Your task to perform on an android device: Is it going to rain this weekend? Image 0: 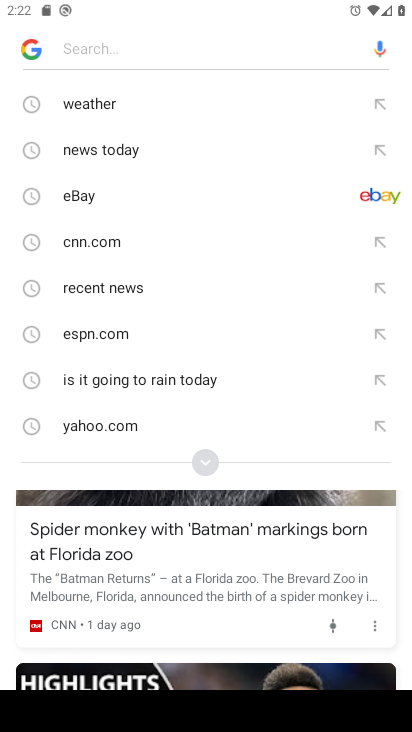
Step 0: press home button
Your task to perform on an android device: Is it going to rain this weekend? Image 1: 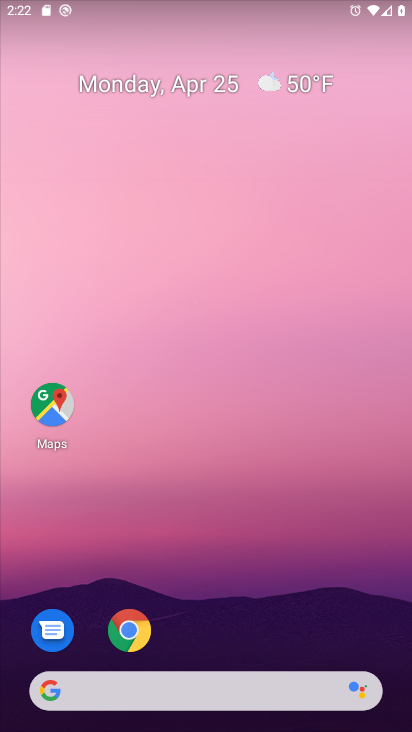
Step 1: drag from (273, 632) to (273, 150)
Your task to perform on an android device: Is it going to rain this weekend? Image 2: 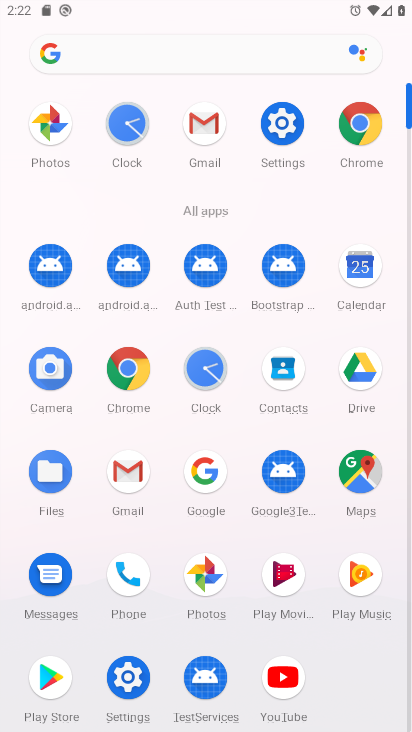
Step 2: click (201, 476)
Your task to perform on an android device: Is it going to rain this weekend? Image 3: 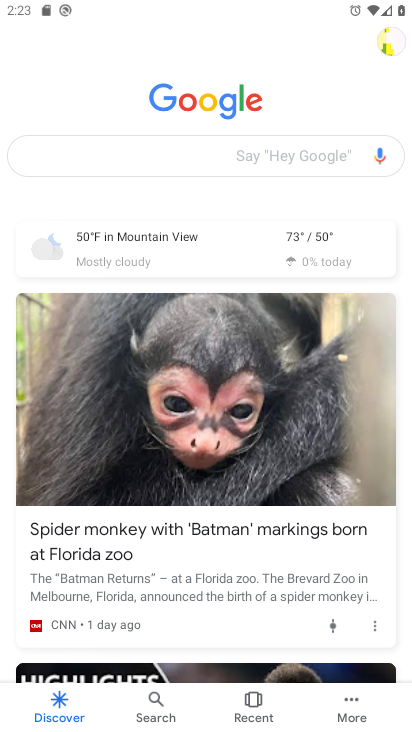
Step 3: click (202, 240)
Your task to perform on an android device: Is it going to rain this weekend? Image 4: 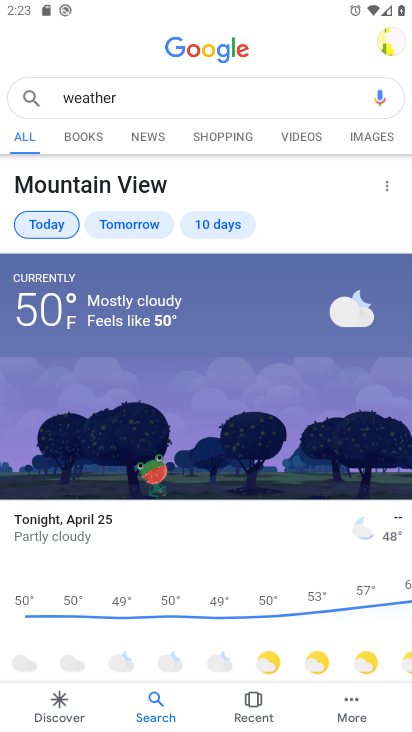
Step 4: click (208, 237)
Your task to perform on an android device: Is it going to rain this weekend? Image 5: 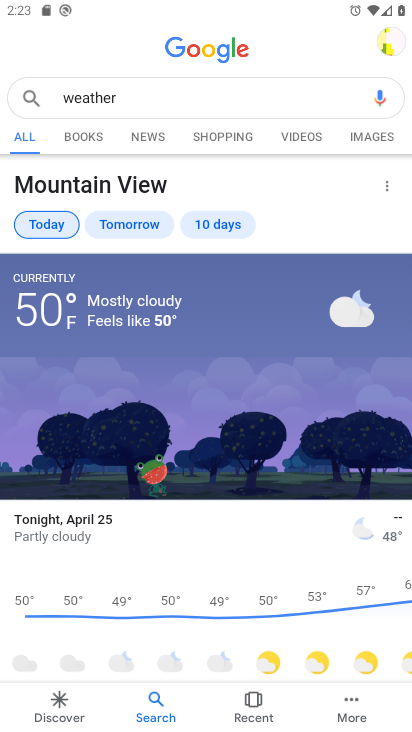
Step 5: click (210, 222)
Your task to perform on an android device: Is it going to rain this weekend? Image 6: 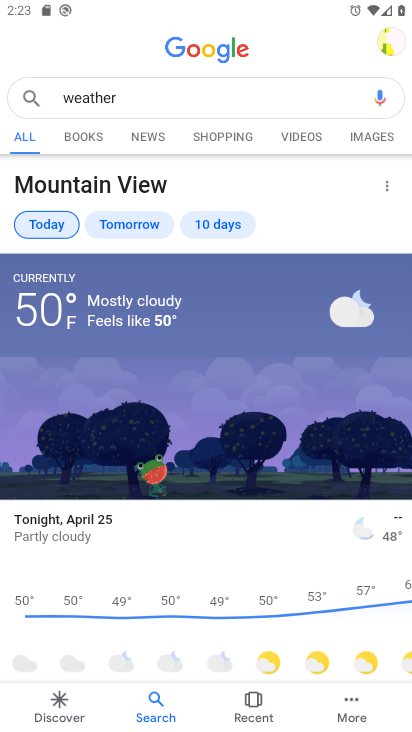
Step 6: click (229, 231)
Your task to perform on an android device: Is it going to rain this weekend? Image 7: 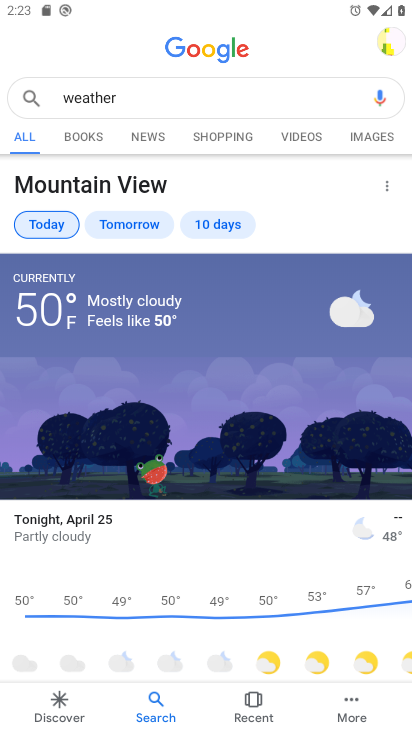
Step 7: click (229, 231)
Your task to perform on an android device: Is it going to rain this weekend? Image 8: 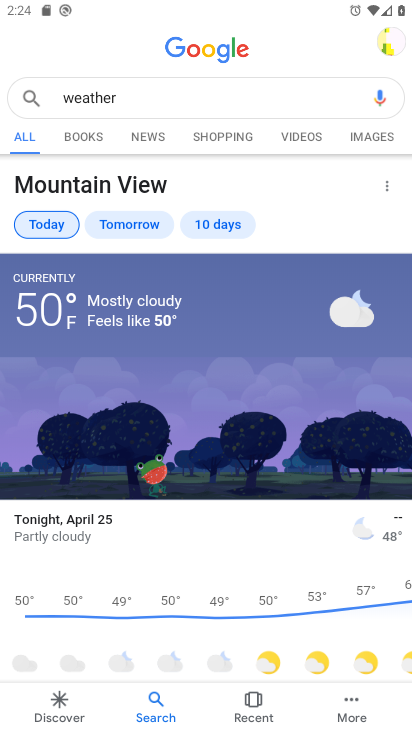
Step 8: click (229, 231)
Your task to perform on an android device: Is it going to rain this weekend? Image 9: 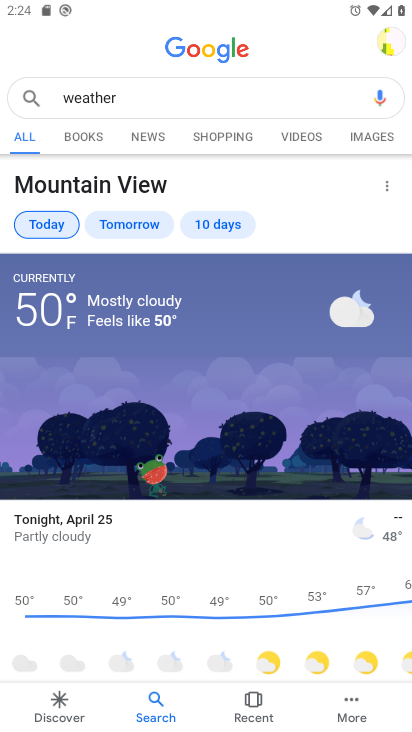
Step 9: click (229, 231)
Your task to perform on an android device: Is it going to rain this weekend? Image 10: 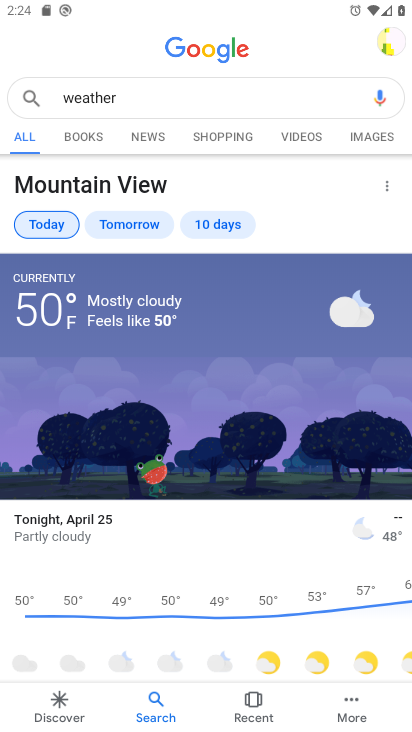
Step 10: click (229, 231)
Your task to perform on an android device: Is it going to rain this weekend? Image 11: 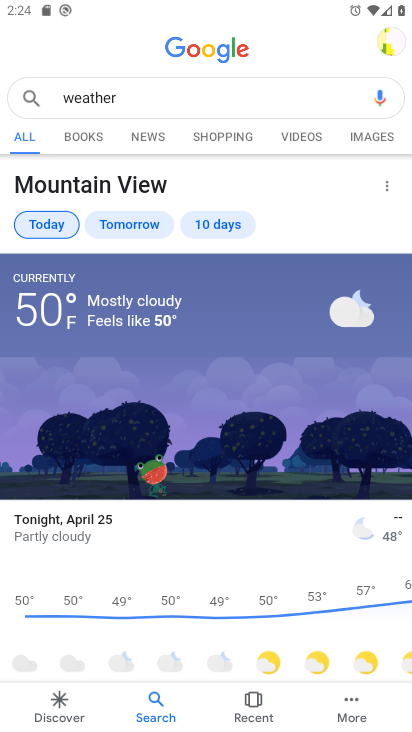
Step 11: click (229, 231)
Your task to perform on an android device: Is it going to rain this weekend? Image 12: 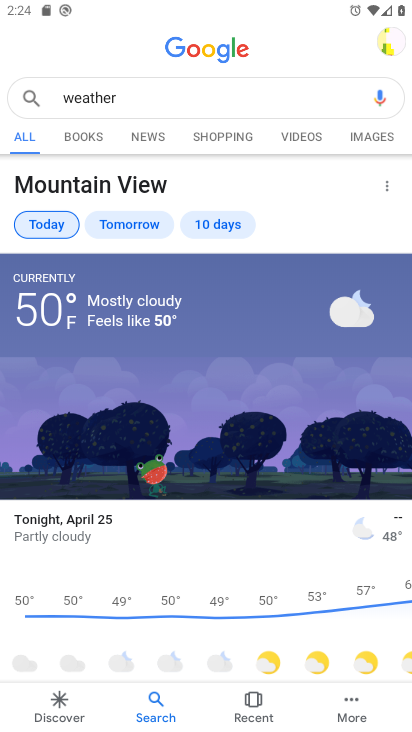
Step 12: click (216, 220)
Your task to perform on an android device: Is it going to rain this weekend? Image 13: 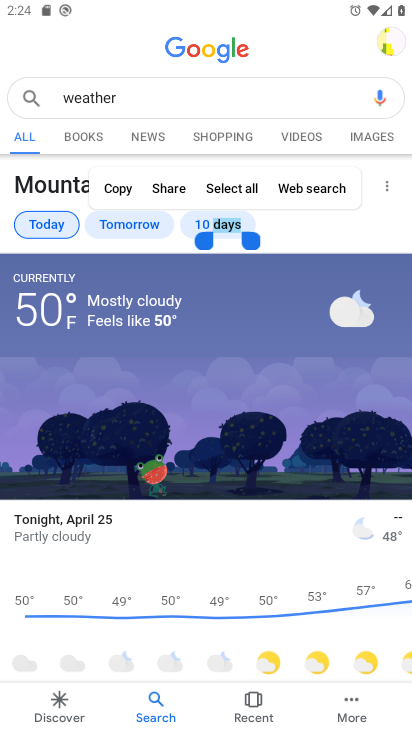
Step 13: click (207, 225)
Your task to perform on an android device: Is it going to rain this weekend? Image 14: 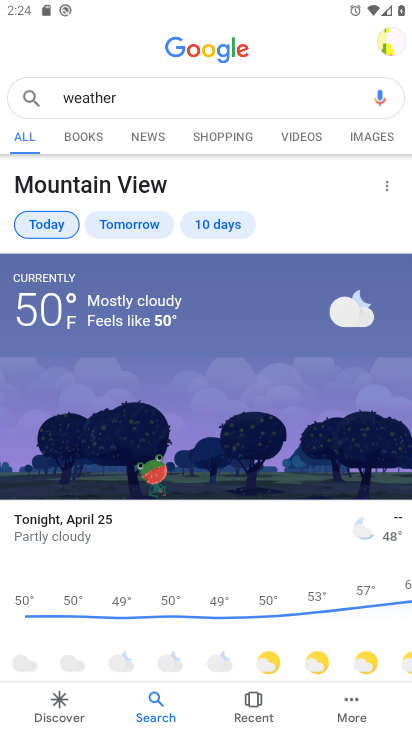
Step 14: click (214, 240)
Your task to perform on an android device: Is it going to rain this weekend? Image 15: 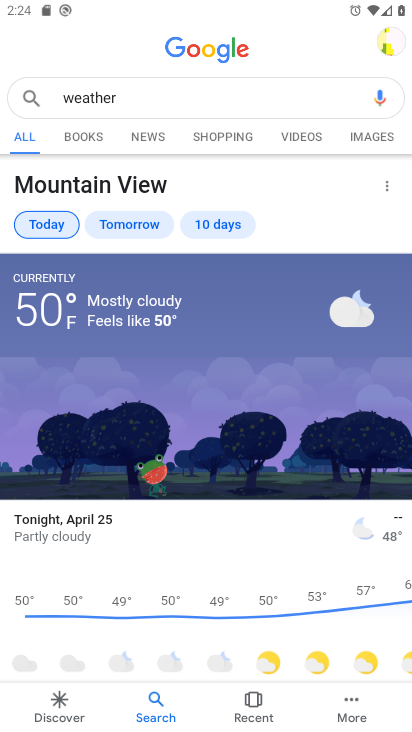
Step 15: click (201, 216)
Your task to perform on an android device: Is it going to rain this weekend? Image 16: 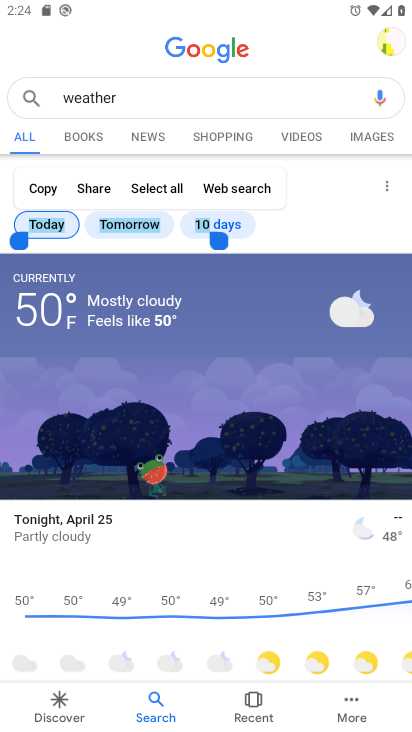
Step 16: drag from (261, 558) to (205, 13)
Your task to perform on an android device: Is it going to rain this weekend? Image 17: 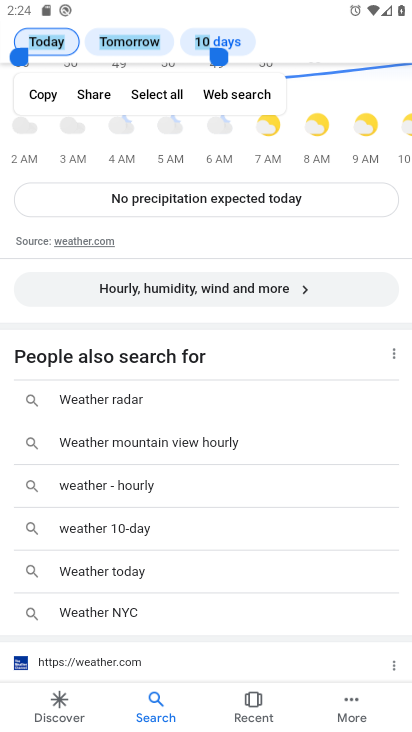
Step 17: click (140, 540)
Your task to perform on an android device: Is it going to rain this weekend? Image 18: 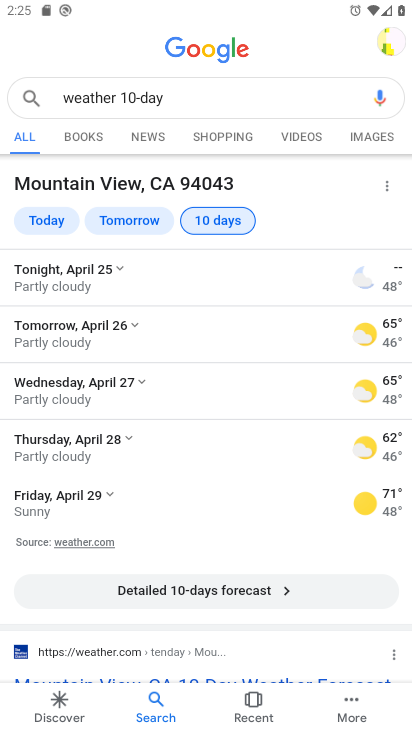
Step 18: drag from (176, 465) to (189, 216)
Your task to perform on an android device: Is it going to rain this weekend? Image 19: 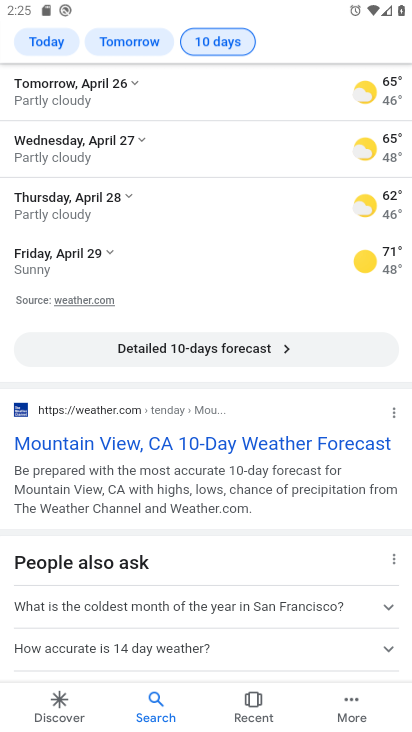
Step 19: click (196, 346)
Your task to perform on an android device: Is it going to rain this weekend? Image 20: 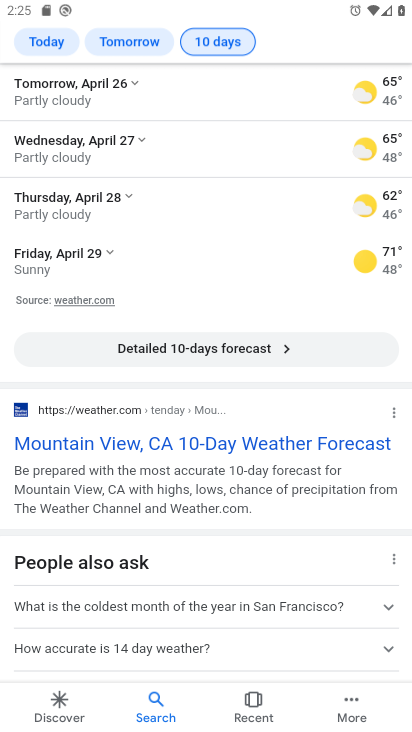
Step 20: click (200, 345)
Your task to perform on an android device: Is it going to rain this weekend? Image 21: 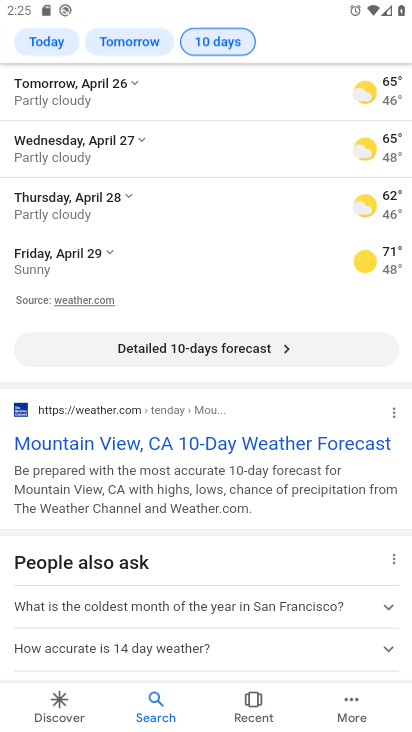
Step 21: task complete